Your task to perform on an android device: Open ESPN.com Image 0: 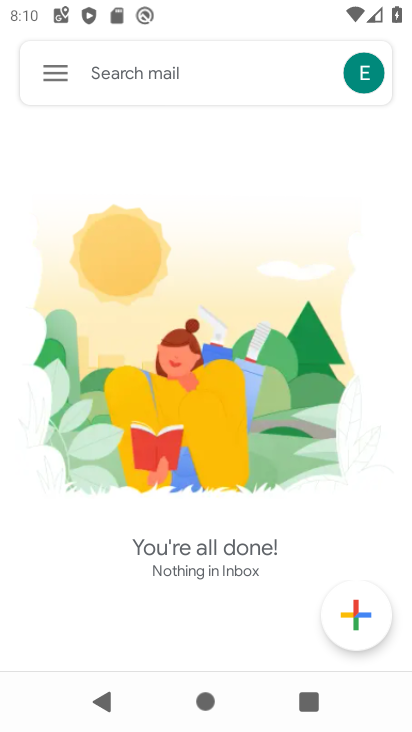
Step 0: press home button
Your task to perform on an android device: Open ESPN.com Image 1: 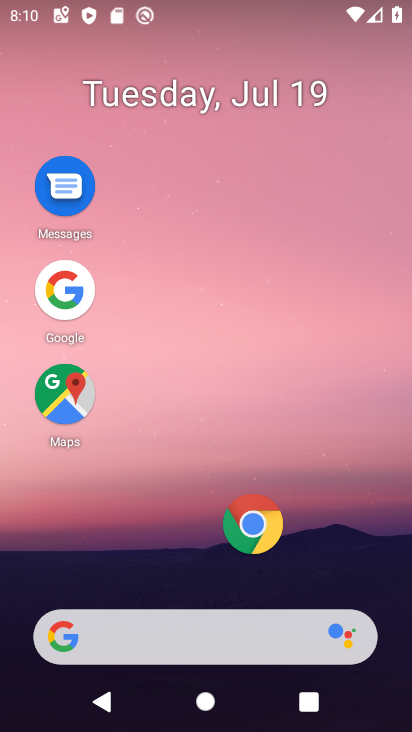
Step 1: drag from (181, 607) to (243, 16)
Your task to perform on an android device: Open ESPN.com Image 2: 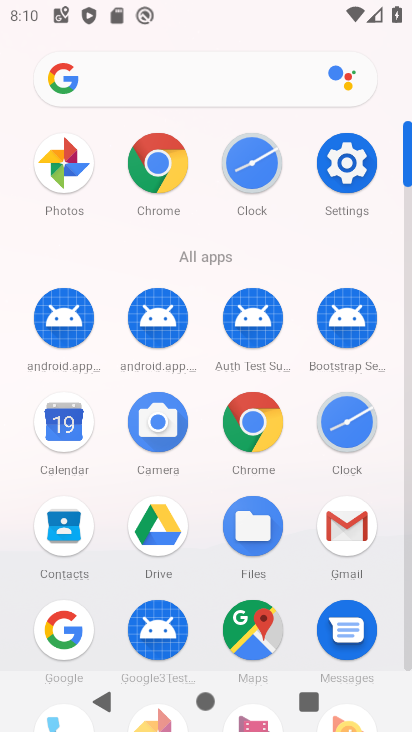
Step 2: click (162, 148)
Your task to perform on an android device: Open ESPN.com Image 3: 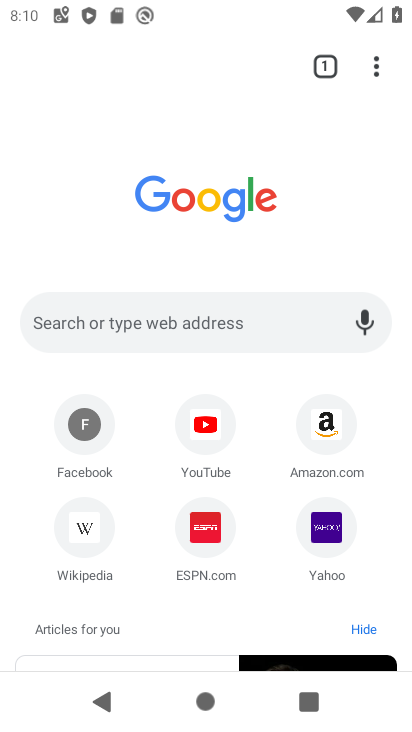
Step 3: click (204, 544)
Your task to perform on an android device: Open ESPN.com Image 4: 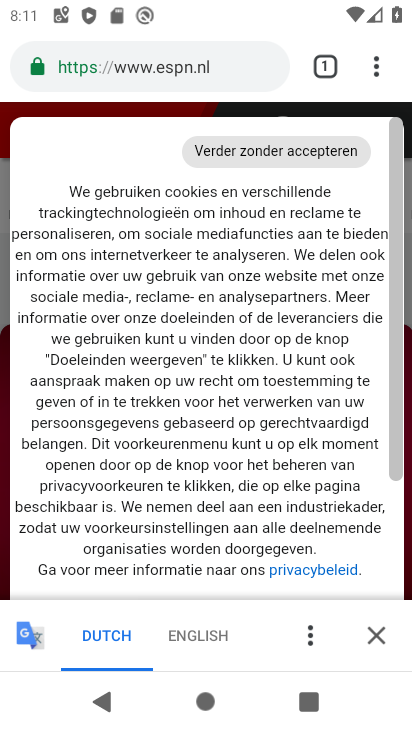
Step 4: task complete